Your task to perform on an android device: refresh tabs in the chrome app Image 0: 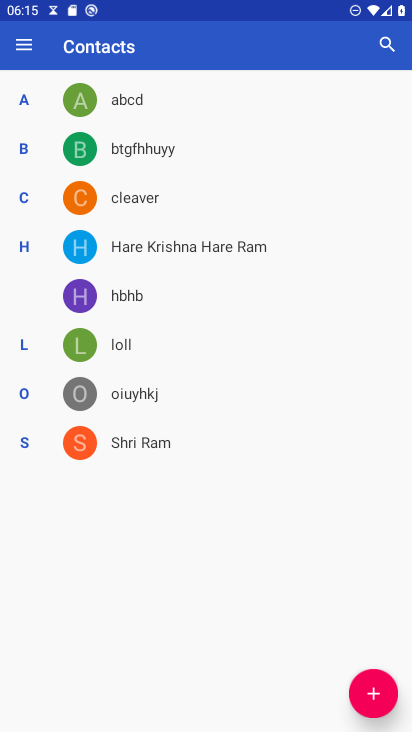
Step 0: press home button
Your task to perform on an android device: refresh tabs in the chrome app Image 1: 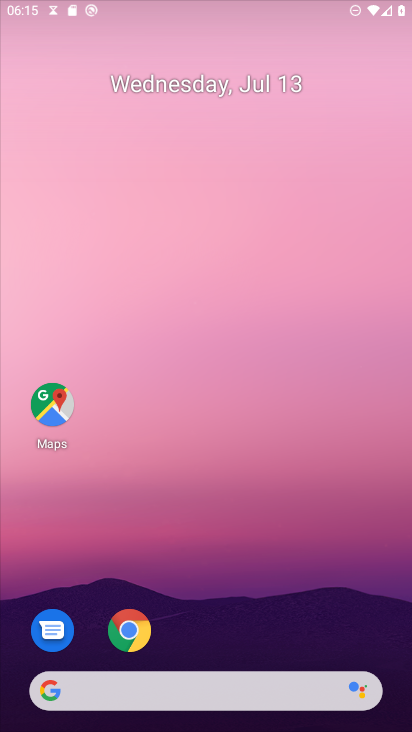
Step 1: drag from (235, 696) to (234, 4)
Your task to perform on an android device: refresh tabs in the chrome app Image 2: 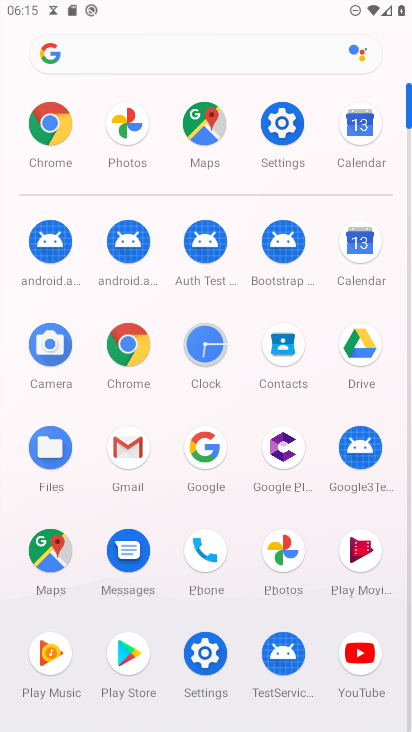
Step 2: click (132, 340)
Your task to perform on an android device: refresh tabs in the chrome app Image 3: 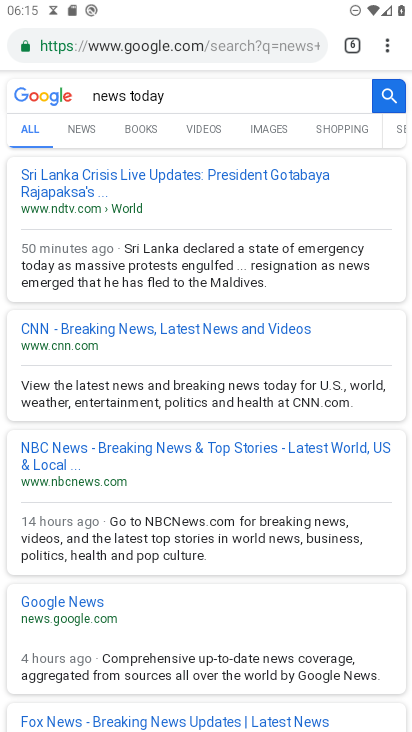
Step 3: click (391, 40)
Your task to perform on an android device: refresh tabs in the chrome app Image 4: 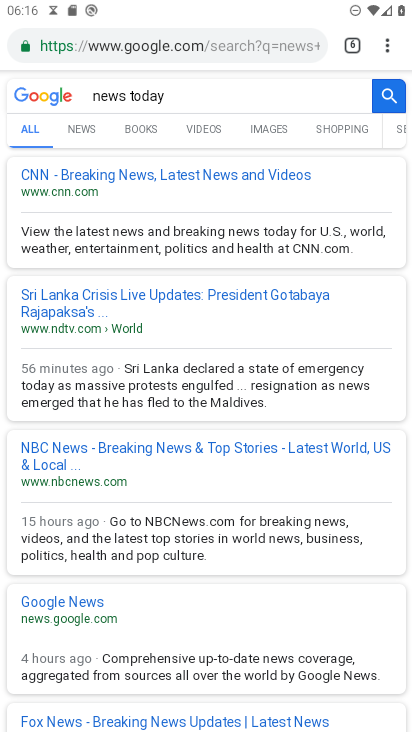
Step 4: task complete